Your task to perform on an android device: Open my contact list Image 0: 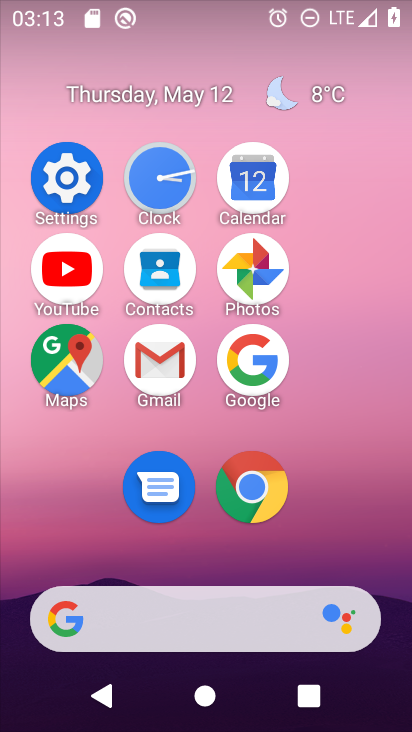
Step 0: click (182, 264)
Your task to perform on an android device: Open my contact list Image 1: 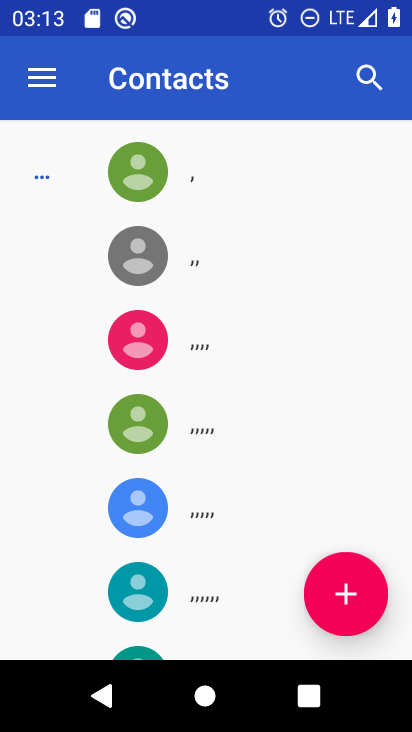
Step 1: task complete